Your task to perform on an android device: Open settings Image 0: 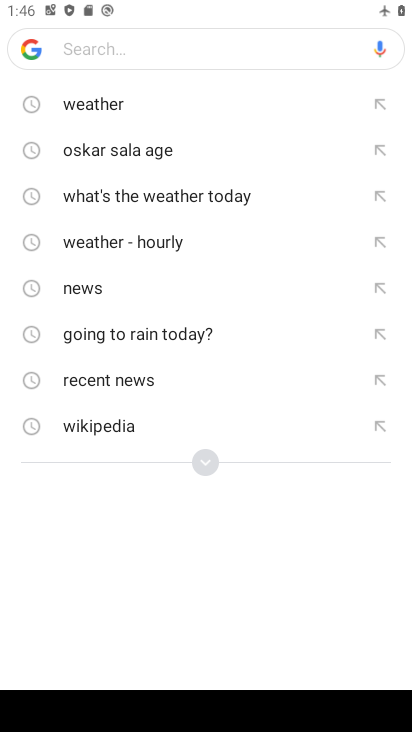
Step 0: press home button
Your task to perform on an android device: Open settings Image 1: 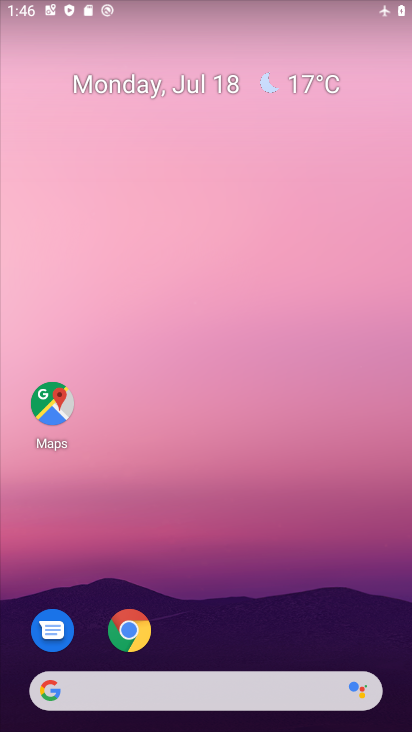
Step 1: drag from (253, 608) to (242, 30)
Your task to perform on an android device: Open settings Image 2: 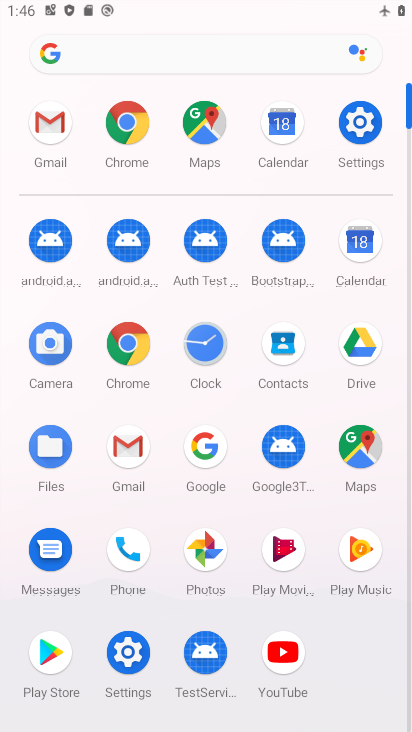
Step 2: click (351, 121)
Your task to perform on an android device: Open settings Image 3: 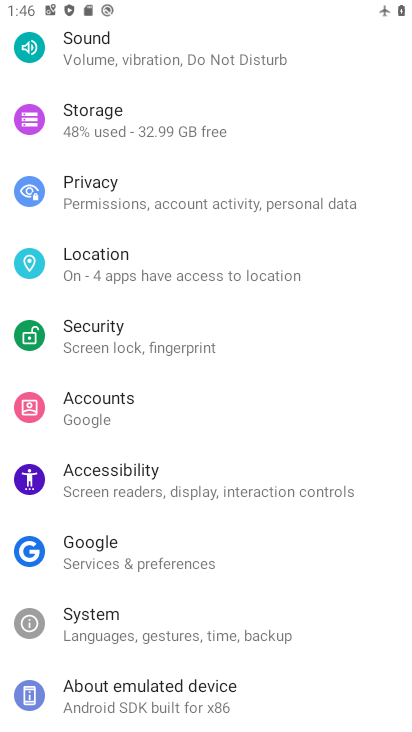
Step 3: task complete